Your task to perform on an android device: Is it going to rain today? Image 0: 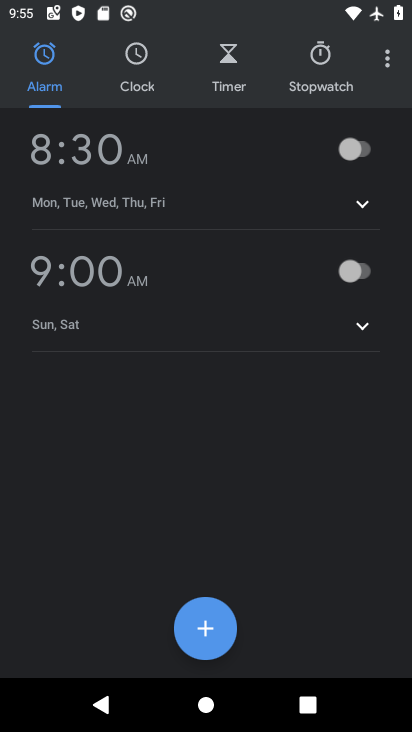
Step 0: press home button
Your task to perform on an android device: Is it going to rain today? Image 1: 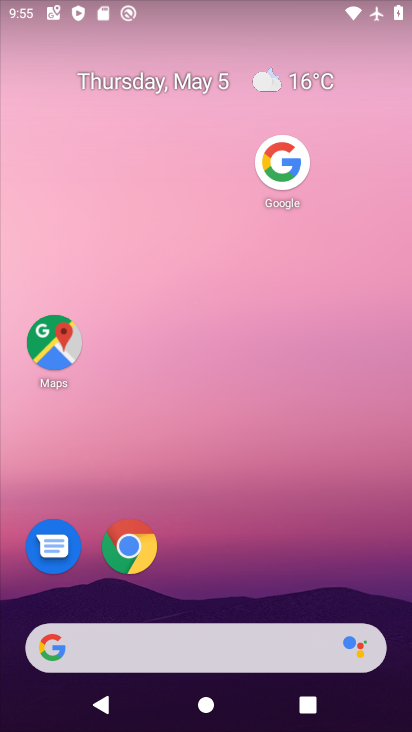
Step 1: click (316, 81)
Your task to perform on an android device: Is it going to rain today? Image 2: 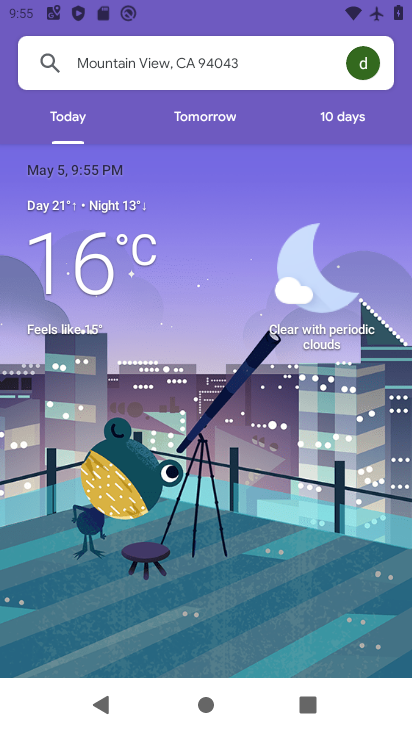
Step 2: task complete